Your task to perform on an android device: toggle improve location accuracy Image 0: 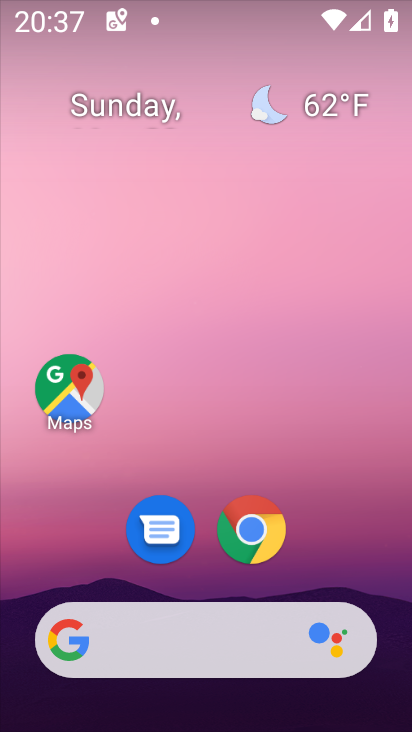
Step 0: drag from (264, 669) to (233, 225)
Your task to perform on an android device: toggle improve location accuracy Image 1: 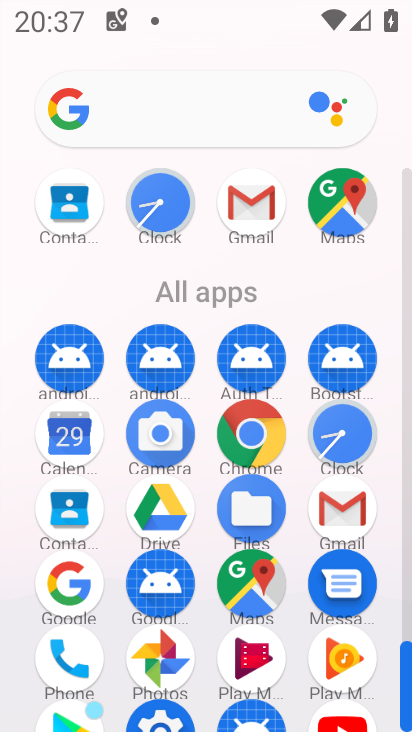
Step 1: click (299, 186)
Your task to perform on an android device: toggle improve location accuracy Image 2: 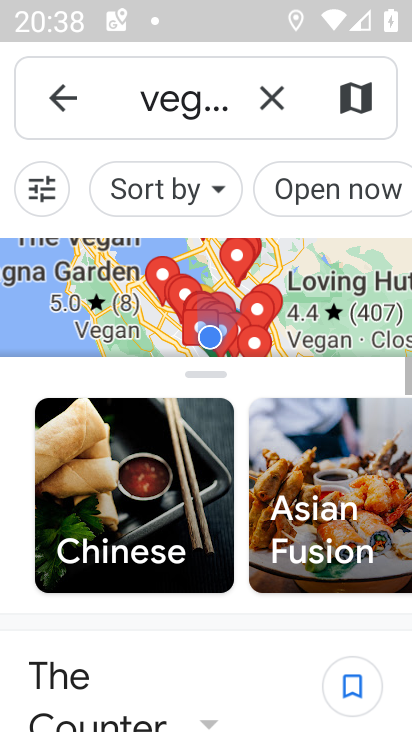
Step 2: click (49, 91)
Your task to perform on an android device: toggle improve location accuracy Image 3: 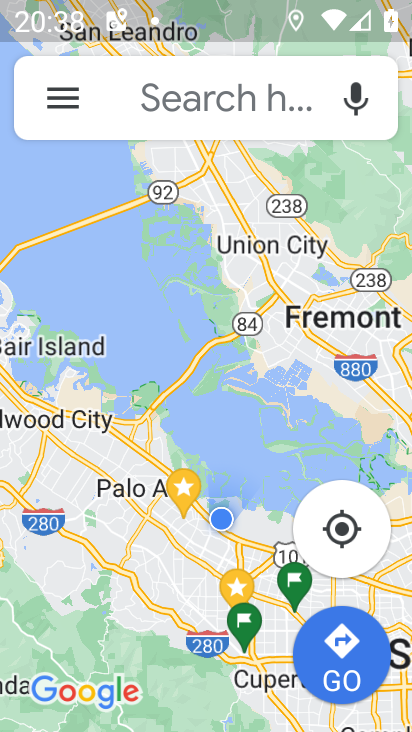
Step 3: press back button
Your task to perform on an android device: toggle improve location accuracy Image 4: 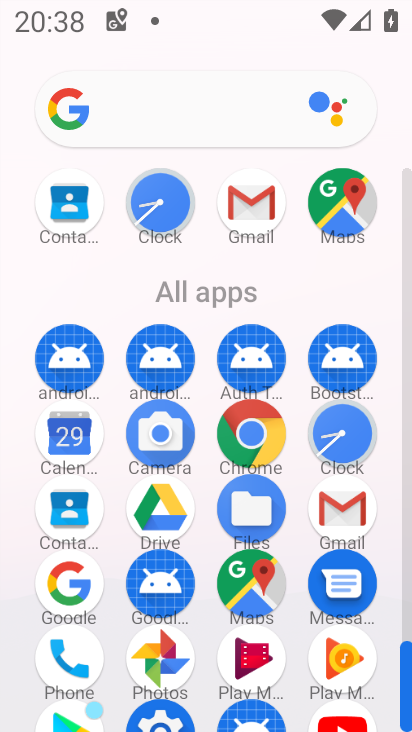
Step 4: drag from (206, 668) to (195, 348)
Your task to perform on an android device: toggle improve location accuracy Image 5: 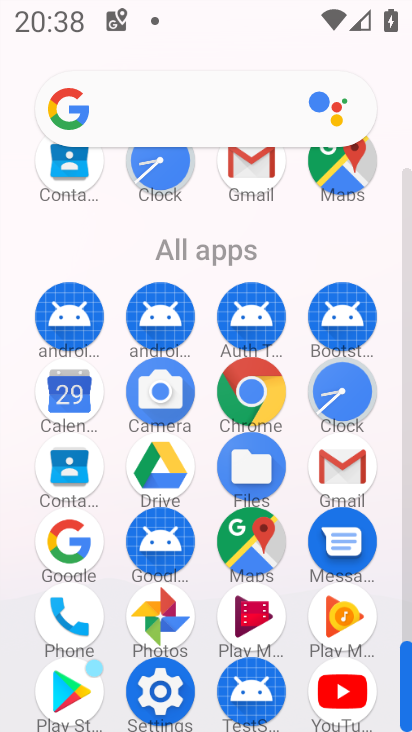
Step 5: drag from (195, 574) to (218, 279)
Your task to perform on an android device: toggle improve location accuracy Image 6: 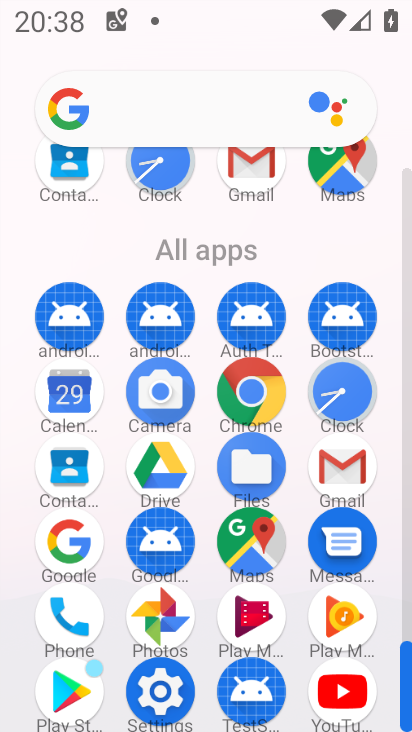
Step 6: click (164, 681)
Your task to perform on an android device: toggle improve location accuracy Image 7: 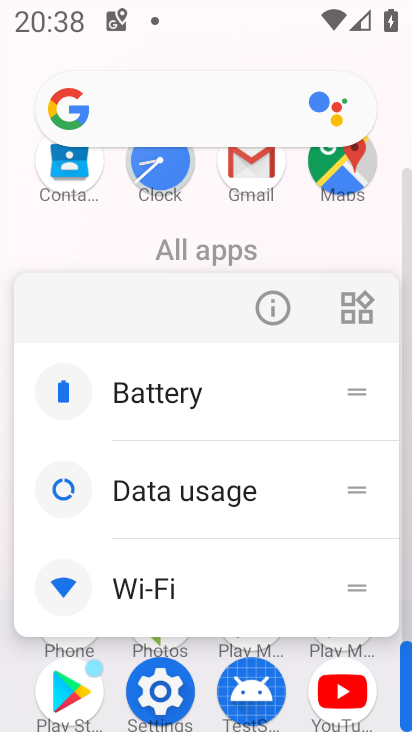
Step 7: click (160, 684)
Your task to perform on an android device: toggle improve location accuracy Image 8: 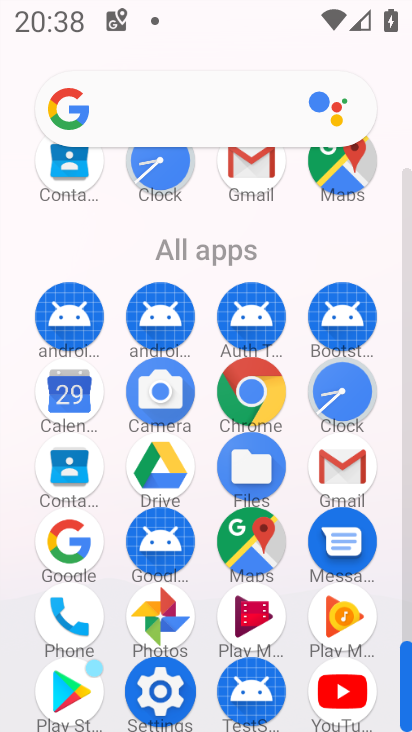
Step 8: click (161, 685)
Your task to perform on an android device: toggle improve location accuracy Image 9: 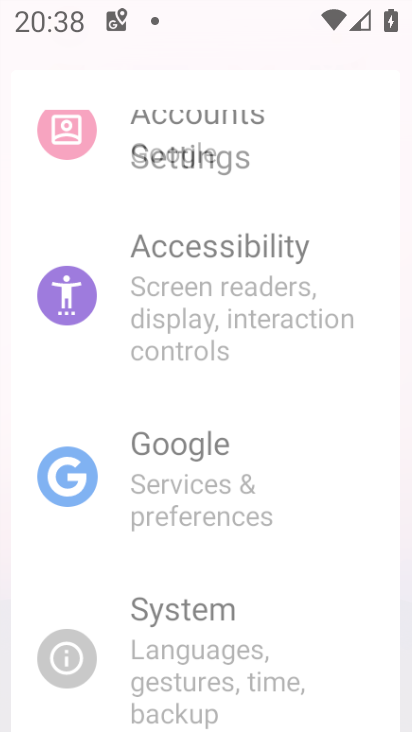
Step 9: click (161, 685)
Your task to perform on an android device: toggle improve location accuracy Image 10: 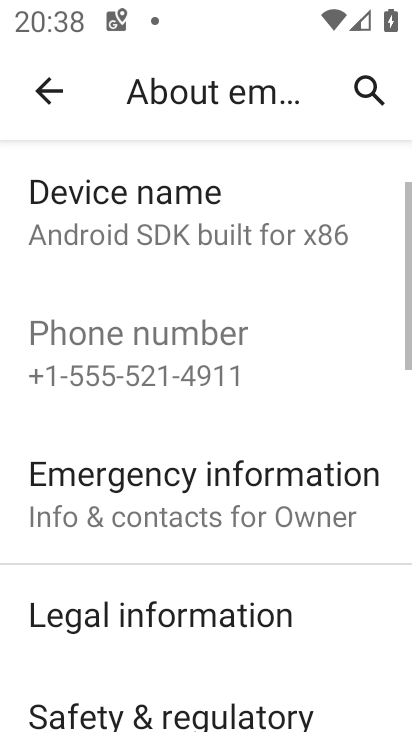
Step 10: click (52, 92)
Your task to perform on an android device: toggle improve location accuracy Image 11: 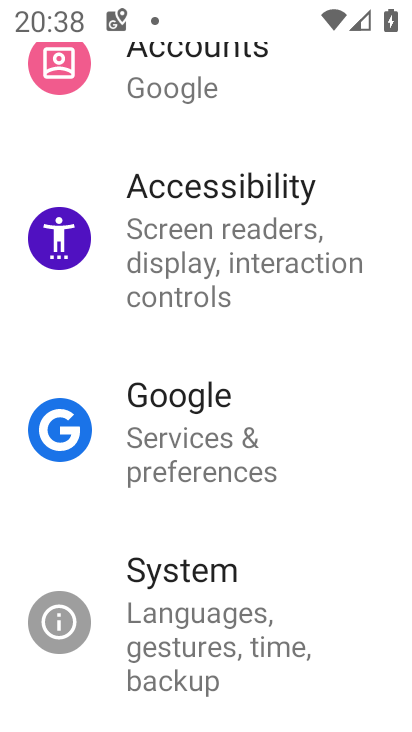
Step 11: drag from (197, 419) to (204, 491)
Your task to perform on an android device: toggle improve location accuracy Image 12: 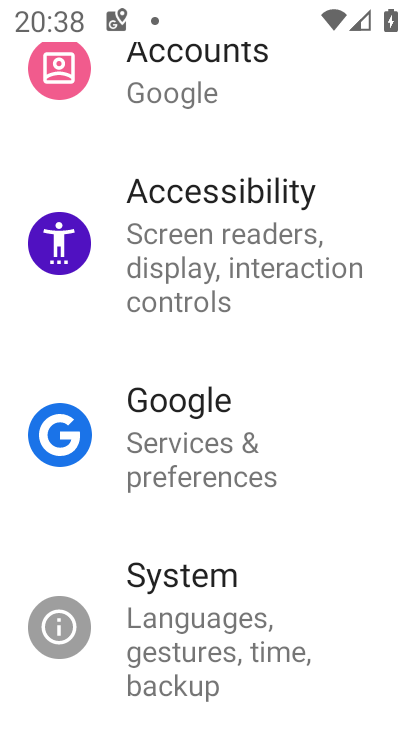
Step 12: drag from (193, 296) to (221, 553)
Your task to perform on an android device: toggle improve location accuracy Image 13: 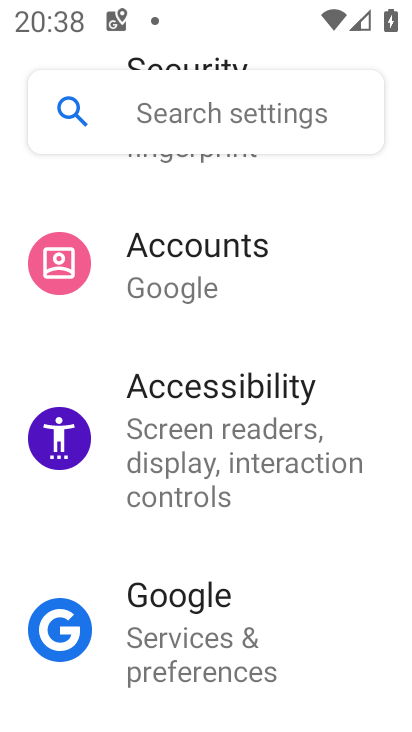
Step 13: drag from (197, 296) to (227, 652)
Your task to perform on an android device: toggle improve location accuracy Image 14: 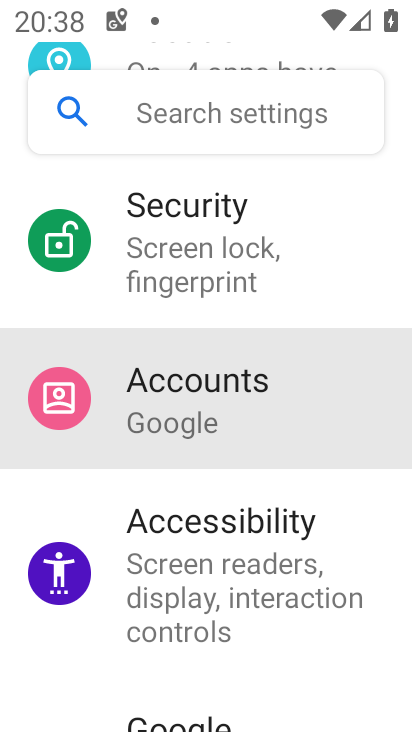
Step 14: drag from (233, 310) to (253, 593)
Your task to perform on an android device: toggle improve location accuracy Image 15: 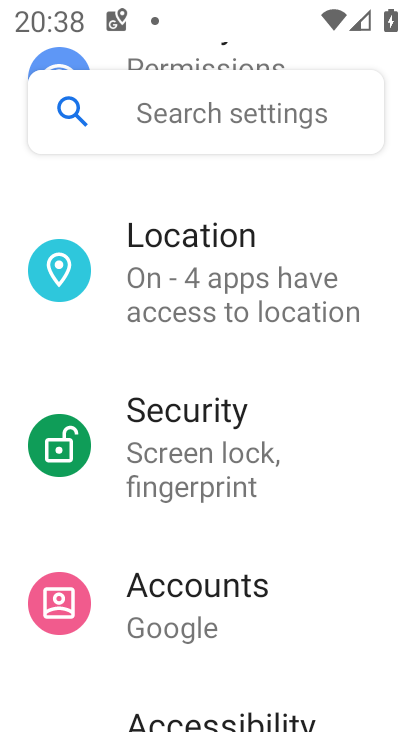
Step 15: click (199, 301)
Your task to perform on an android device: toggle improve location accuracy Image 16: 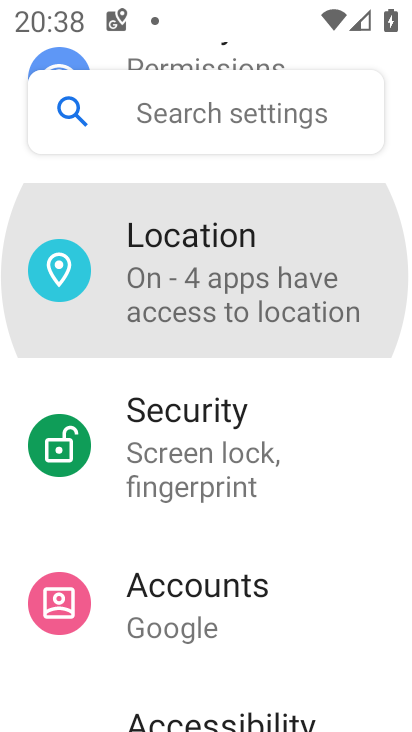
Step 16: click (202, 298)
Your task to perform on an android device: toggle improve location accuracy Image 17: 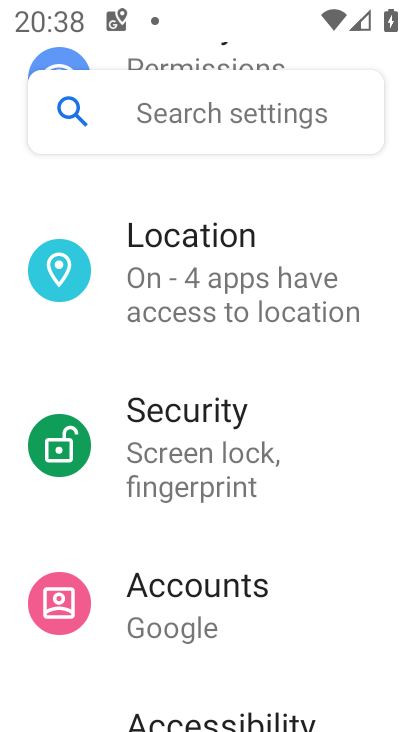
Step 17: click (207, 296)
Your task to perform on an android device: toggle improve location accuracy Image 18: 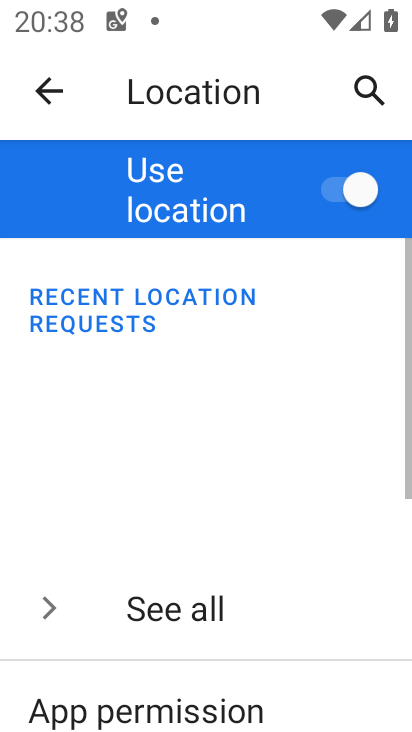
Step 18: click (236, 278)
Your task to perform on an android device: toggle improve location accuracy Image 19: 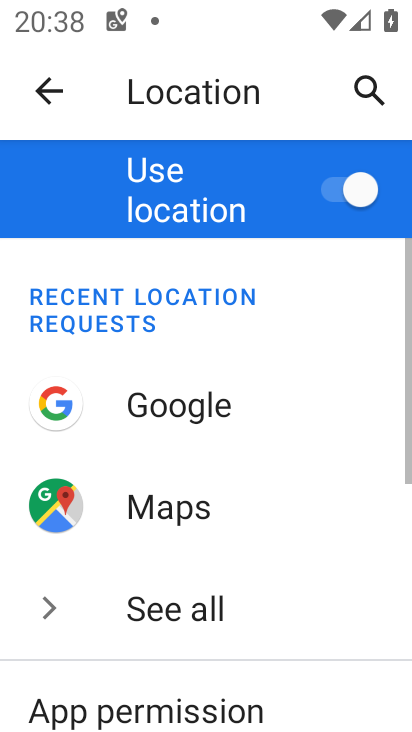
Step 19: drag from (202, 516) to (188, 243)
Your task to perform on an android device: toggle improve location accuracy Image 20: 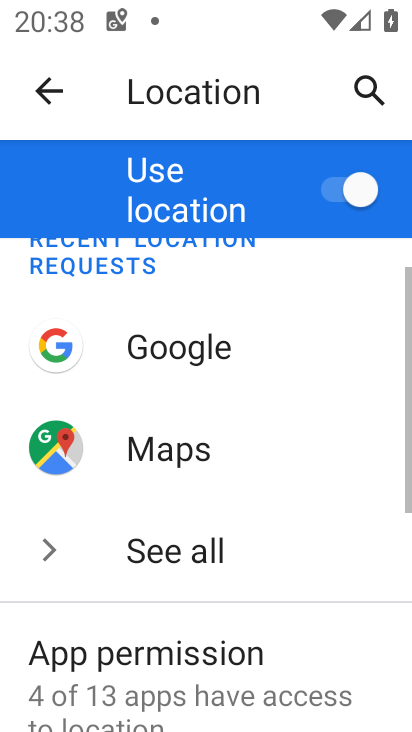
Step 20: drag from (236, 325) to (236, 176)
Your task to perform on an android device: toggle improve location accuracy Image 21: 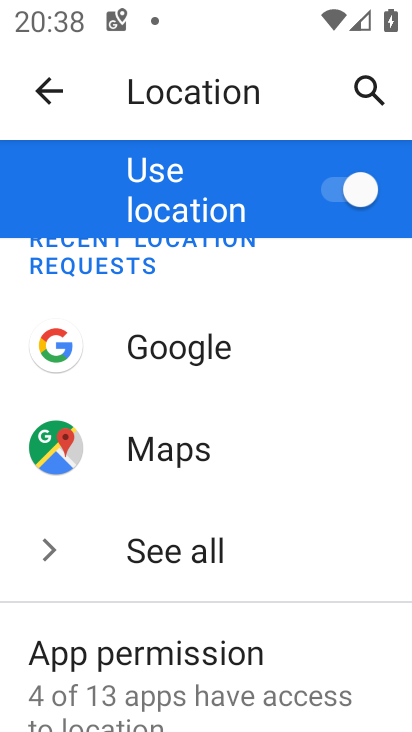
Step 21: drag from (220, 411) to (212, 150)
Your task to perform on an android device: toggle improve location accuracy Image 22: 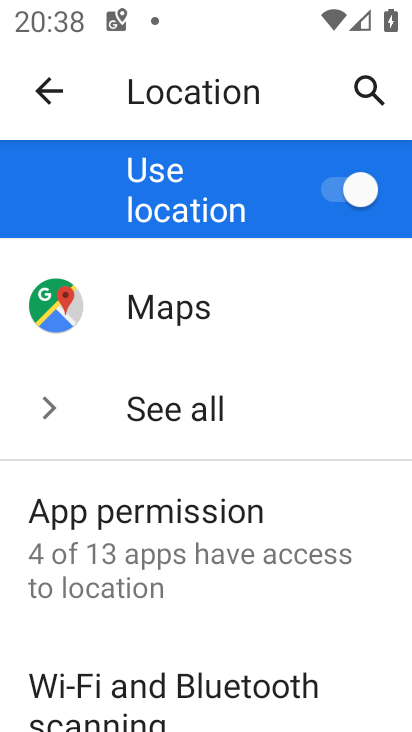
Step 22: drag from (215, 567) to (170, 322)
Your task to perform on an android device: toggle improve location accuracy Image 23: 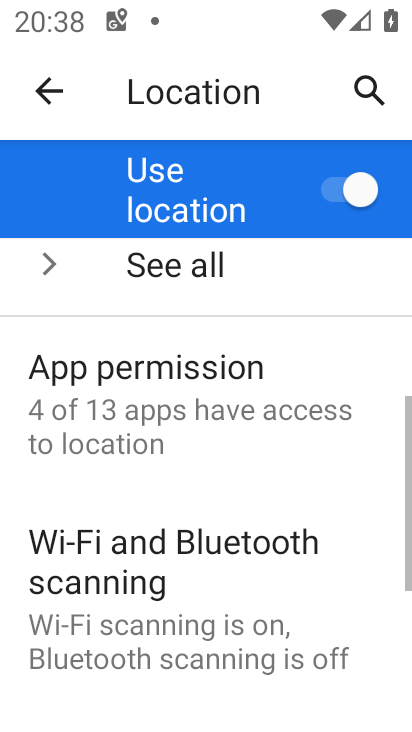
Step 23: drag from (227, 533) to (184, 255)
Your task to perform on an android device: toggle improve location accuracy Image 24: 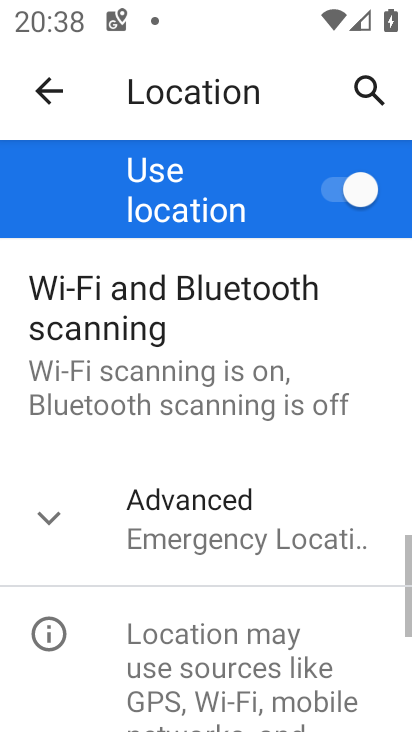
Step 24: drag from (253, 474) to (253, 170)
Your task to perform on an android device: toggle improve location accuracy Image 25: 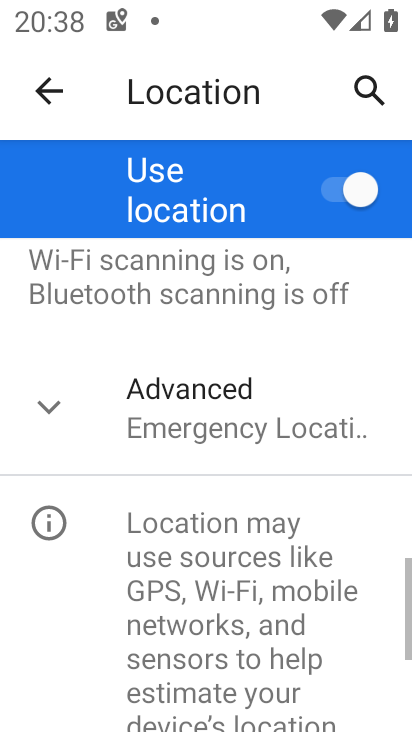
Step 25: drag from (219, 515) to (187, 299)
Your task to perform on an android device: toggle improve location accuracy Image 26: 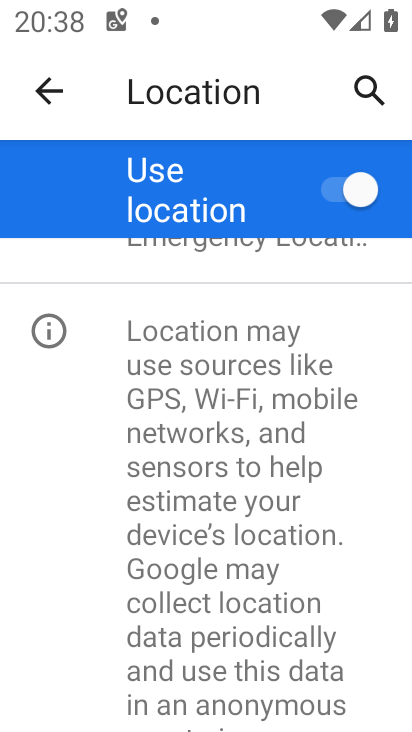
Step 26: click (227, 364)
Your task to perform on an android device: toggle improve location accuracy Image 27: 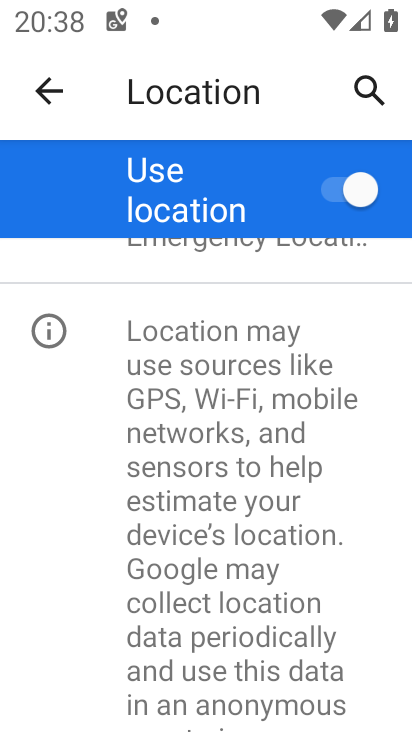
Step 27: drag from (188, 331) to (215, 601)
Your task to perform on an android device: toggle improve location accuracy Image 28: 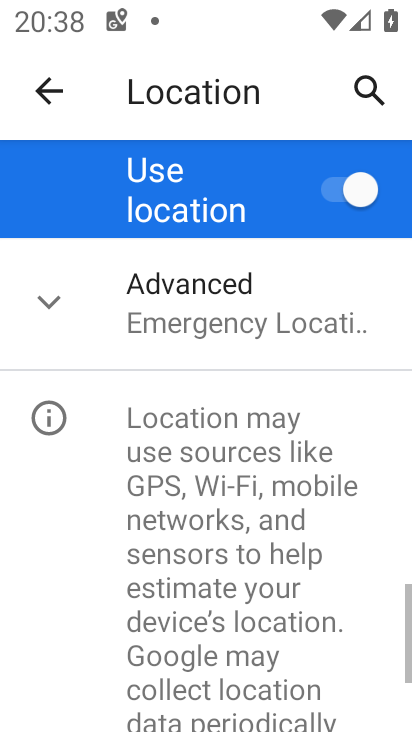
Step 28: drag from (212, 473) to (213, 647)
Your task to perform on an android device: toggle improve location accuracy Image 29: 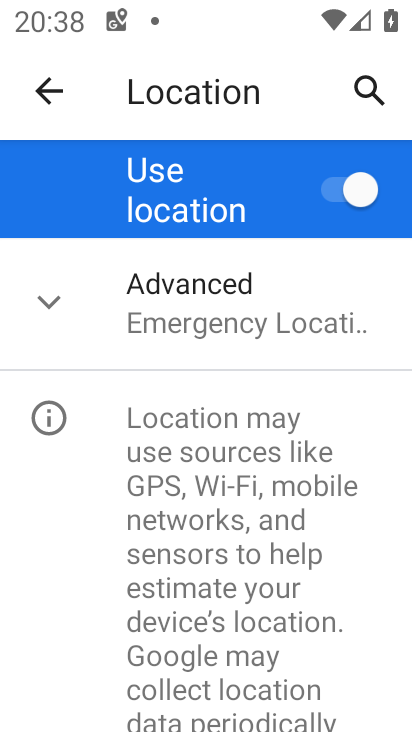
Step 29: click (222, 306)
Your task to perform on an android device: toggle improve location accuracy Image 30: 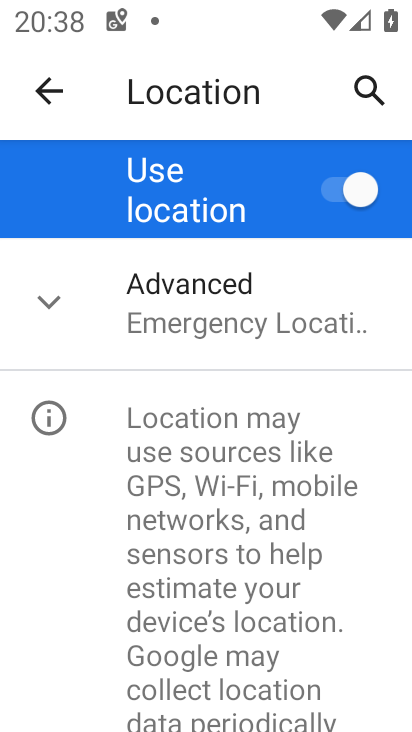
Step 30: click (222, 306)
Your task to perform on an android device: toggle improve location accuracy Image 31: 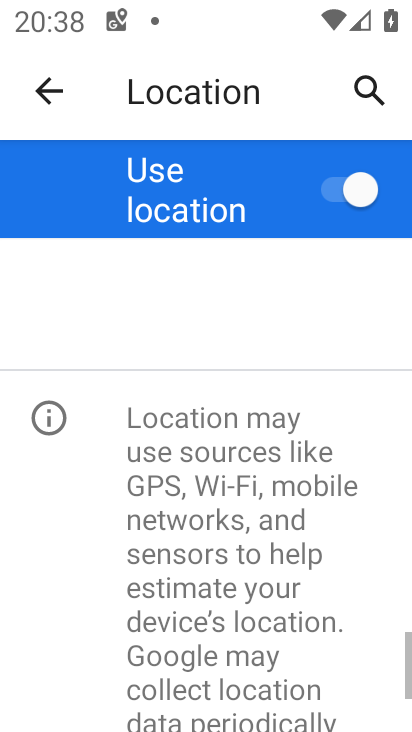
Step 31: click (223, 305)
Your task to perform on an android device: toggle improve location accuracy Image 32: 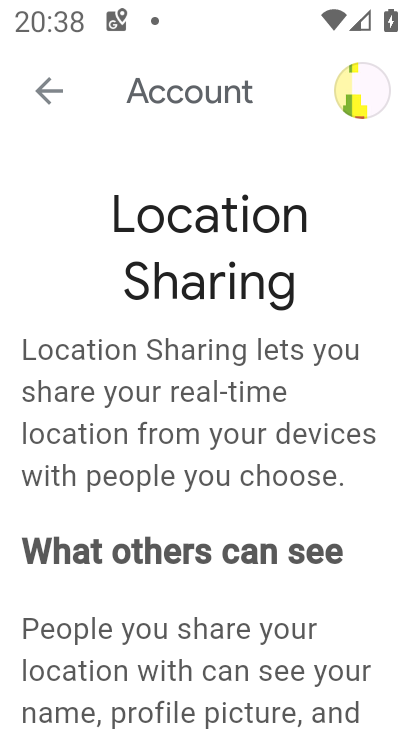
Step 32: click (32, 94)
Your task to perform on an android device: toggle improve location accuracy Image 33: 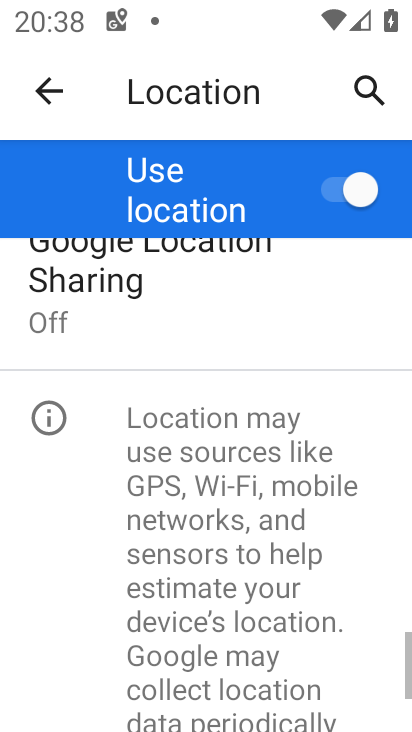
Step 33: drag from (200, 442) to (178, 565)
Your task to perform on an android device: toggle improve location accuracy Image 34: 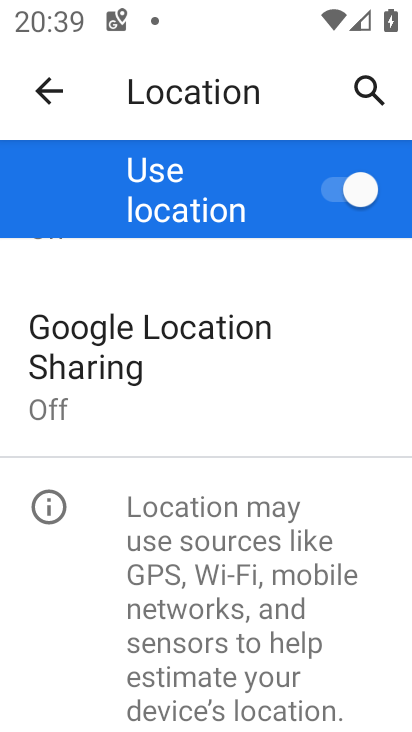
Step 34: drag from (183, 347) to (183, 547)
Your task to perform on an android device: toggle improve location accuracy Image 35: 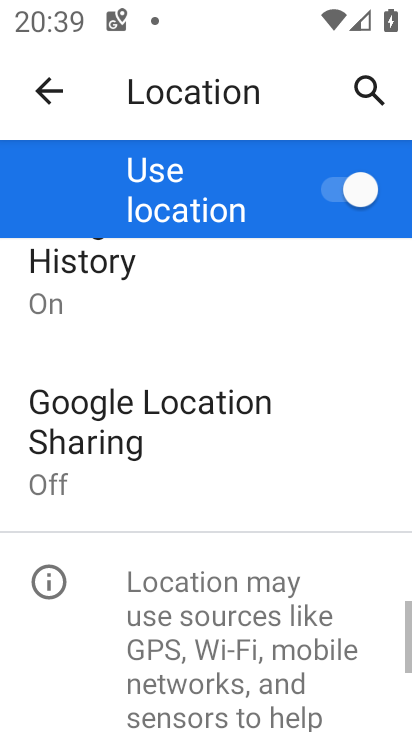
Step 35: drag from (166, 322) to (179, 591)
Your task to perform on an android device: toggle improve location accuracy Image 36: 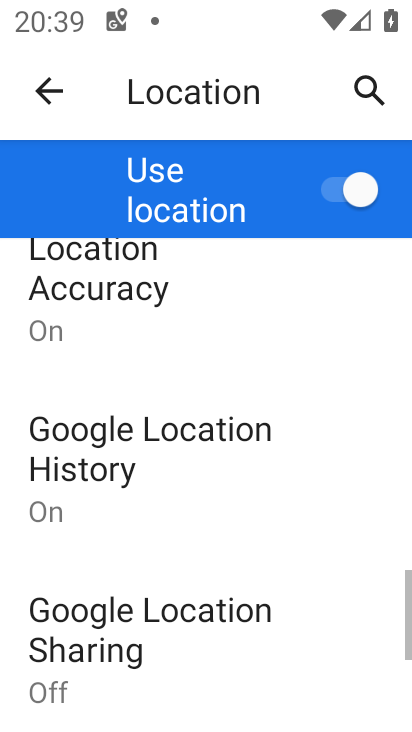
Step 36: drag from (148, 335) to (179, 529)
Your task to perform on an android device: toggle improve location accuracy Image 37: 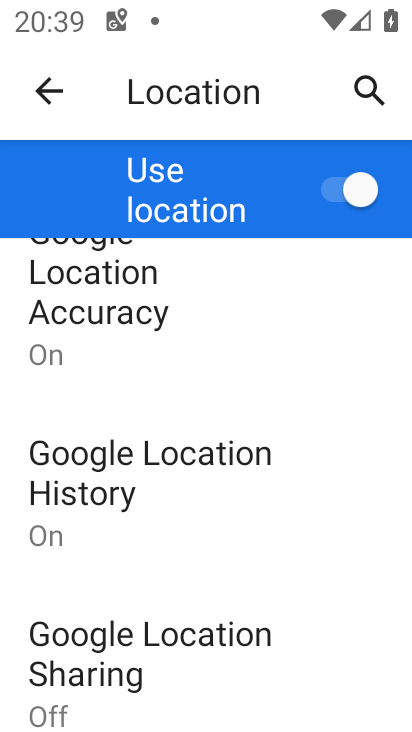
Step 37: drag from (136, 375) to (175, 646)
Your task to perform on an android device: toggle improve location accuracy Image 38: 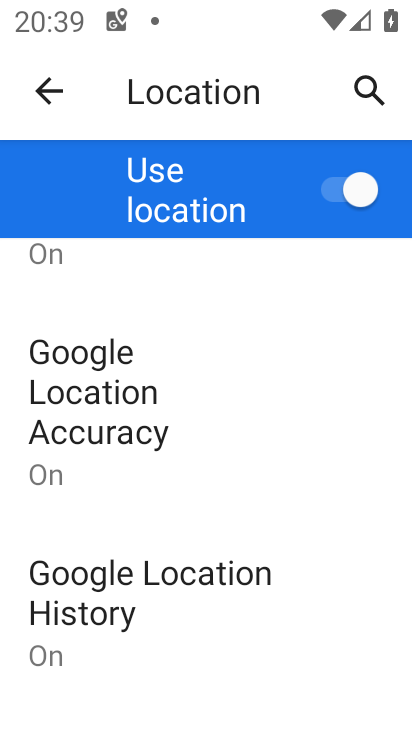
Step 38: click (124, 434)
Your task to perform on an android device: toggle improve location accuracy Image 39: 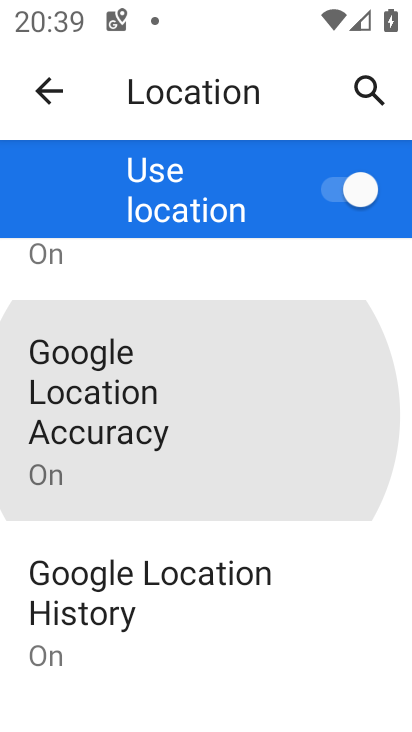
Step 39: click (124, 434)
Your task to perform on an android device: toggle improve location accuracy Image 40: 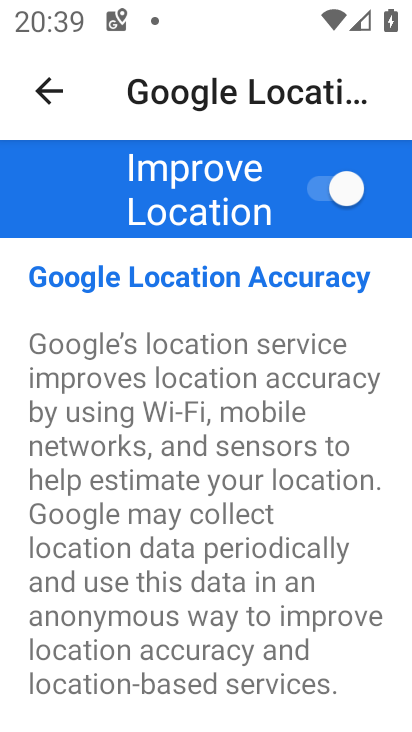
Step 40: task complete